Your task to perform on an android device: Go to CNN.com Image 0: 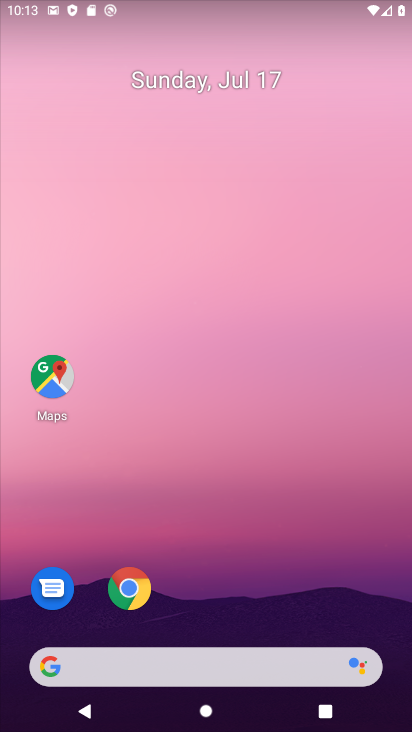
Step 0: press home button
Your task to perform on an android device: Go to CNN.com Image 1: 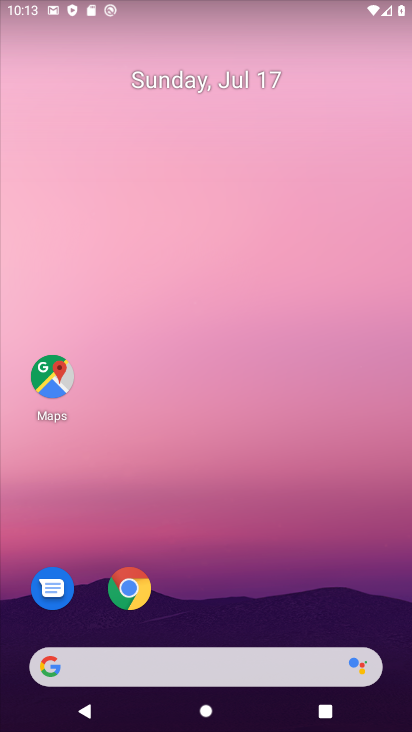
Step 1: click (139, 591)
Your task to perform on an android device: Go to CNN.com Image 2: 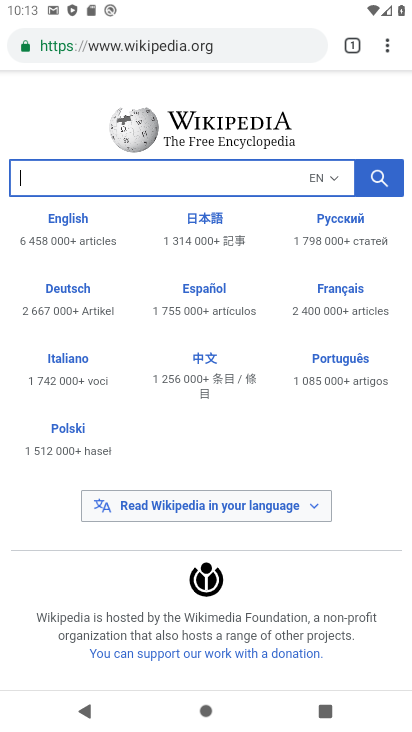
Step 2: click (167, 43)
Your task to perform on an android device: Go to CNN.com Image 3: 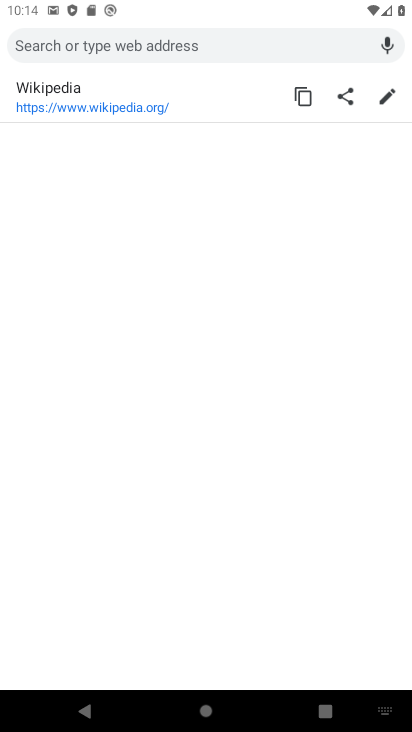
Step 3: type "CNN.com"
Your task to perform on an android device: Go to CNN.com Image 4: 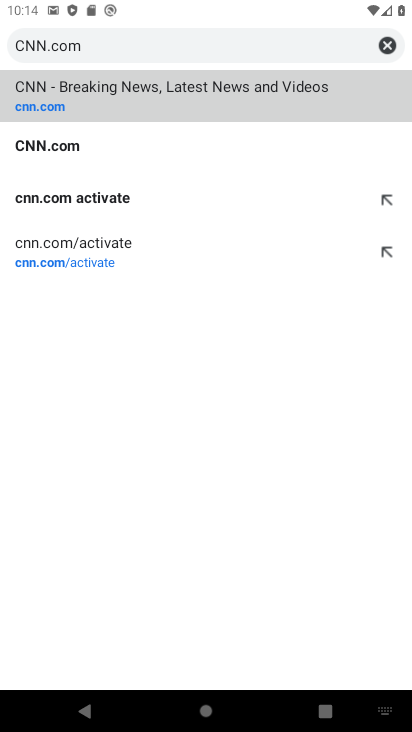
Step 4: click (135, 98)
Your task to perform on an android device: Go to CNN.com Image 5: 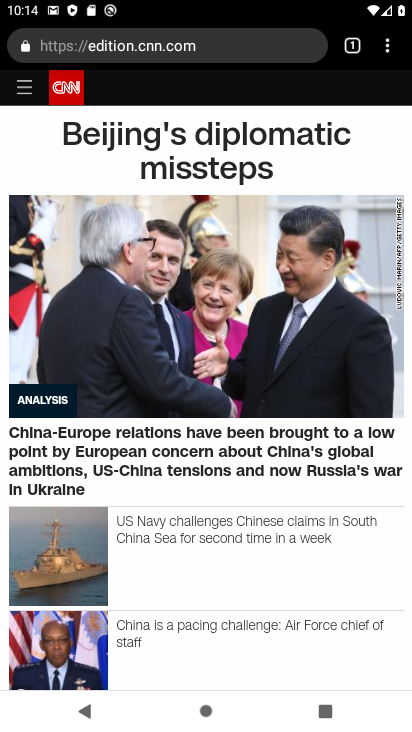
Step 5: task complete